Your task to perform on an android device: Open calendar and show me the second week of next month Image 0: 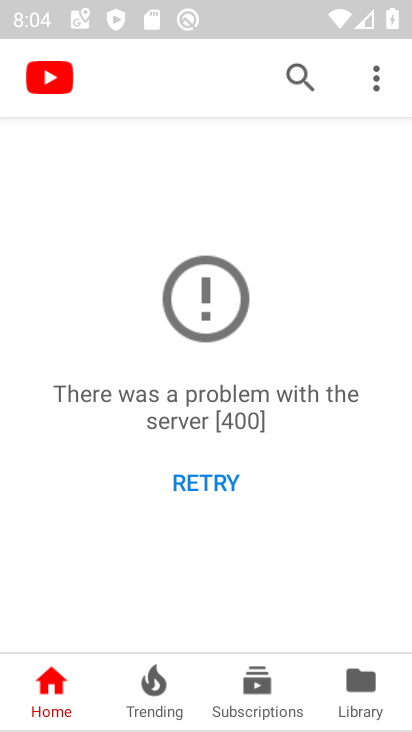
Step 0: press home button
Your task to perform on an android device: Open calendar and show me the second week of next month Image 1: 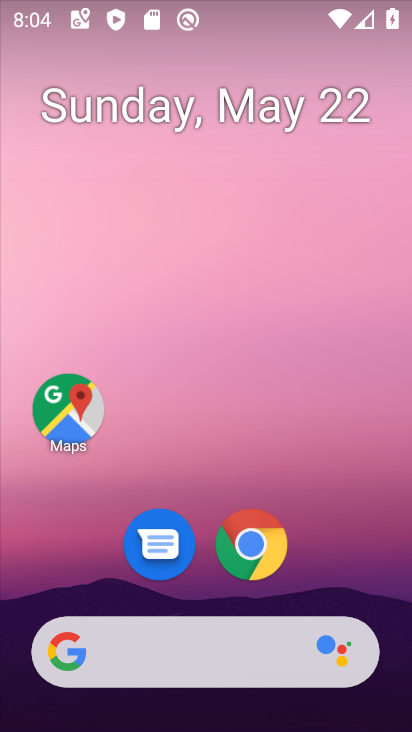
Step 1: drag from (359, 577) to (358, 227)
Your task to perform on an android device: Open calendar and show me the second week of next month Image 2: 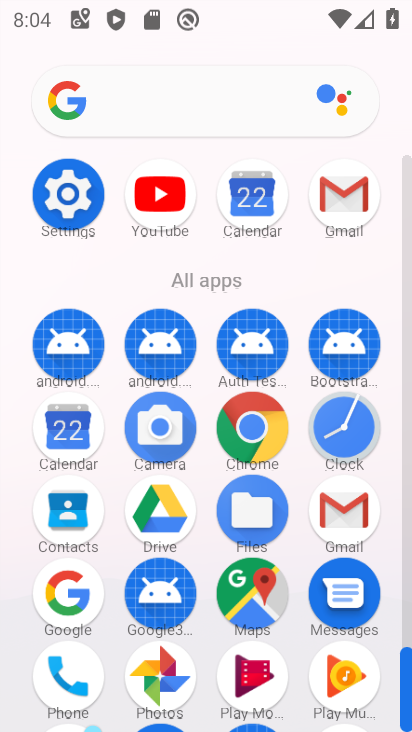
Step 2: click (88, 442)
Your task to perform on an android device: Open calendar and show me the second week of next month Image 3: 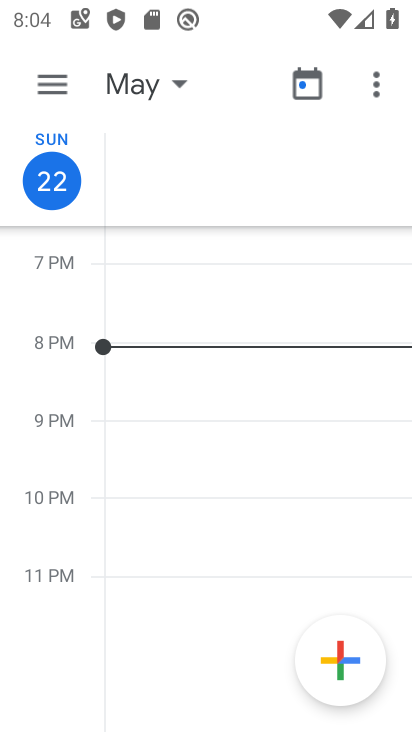
Step 3: click (115, 93)
Your task to perform on an android device: Open calendar and show me the second week of next month Image 4: 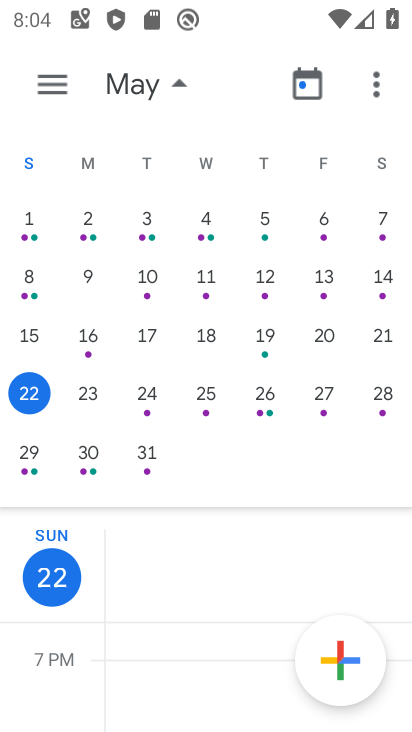
Step 4: drag from (392, 350) to (69, 353)
Your task to perform on an android device: Open calendar and show me the second week of next month Image 5: 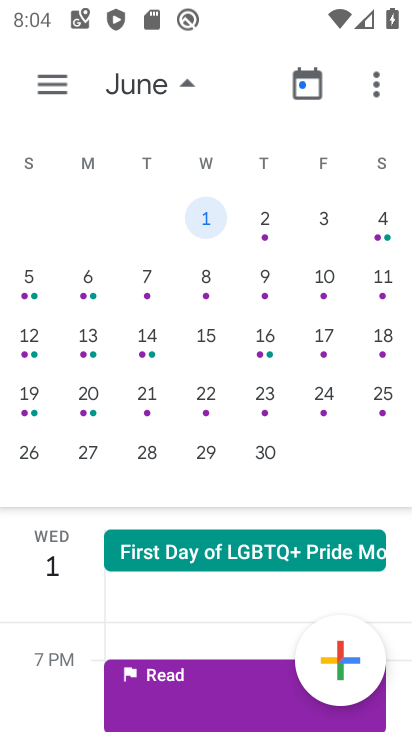
Step 5: click (18, 353)
Your task to perform on an android device: Open calendar and show me the second week of next month Image 6: 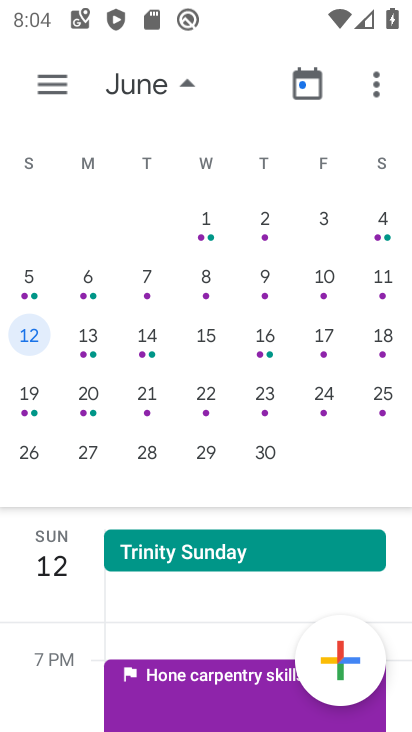
Step 6: click (69, 81)
Your task to perform on an android device: Open calendar and show me the second week of next month Image 7: 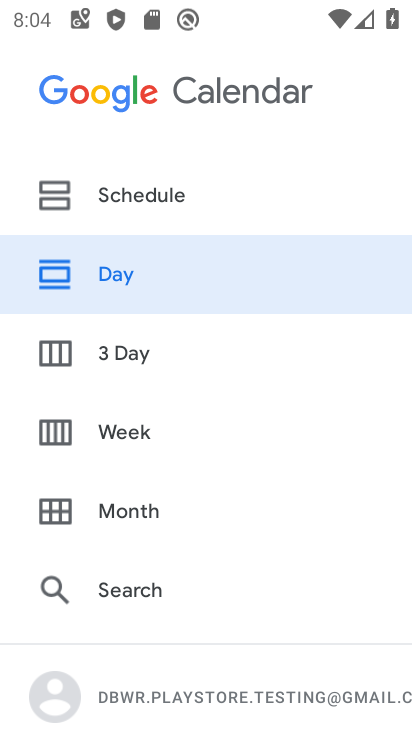
Step 7: click (133, 425)
Your task to perform on an android device: Open calendar and show me the second week of next month Image 8: 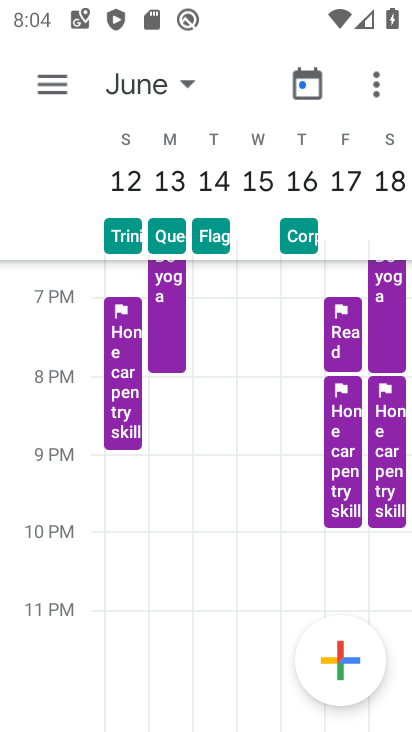
Step 8: task complete